Your task to perform on an android device: turn on sleep mode Image 0: 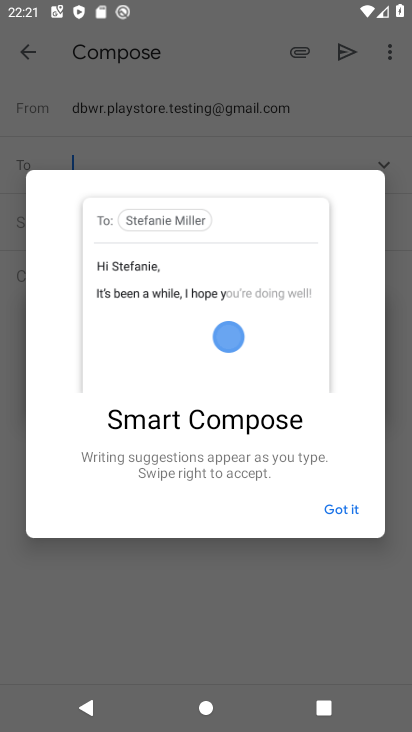
Step 0: press home button
Your task to perform on an android device: turn on sleep mode Image 1: 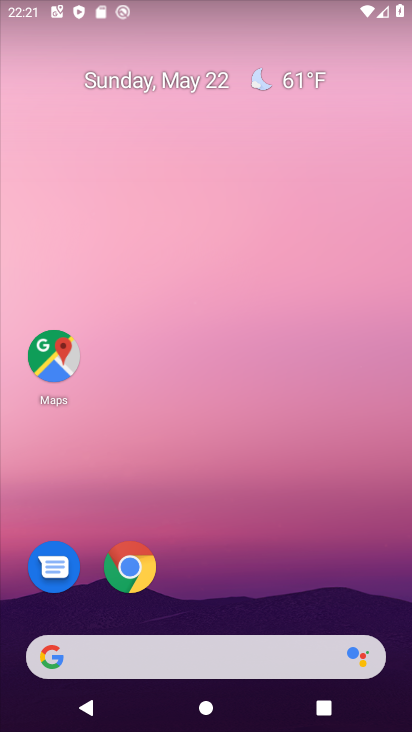
Step 1: drag from (195, 612) to (175, 83)
Your task to perform on an android device: turn on sleep mode Image 2: 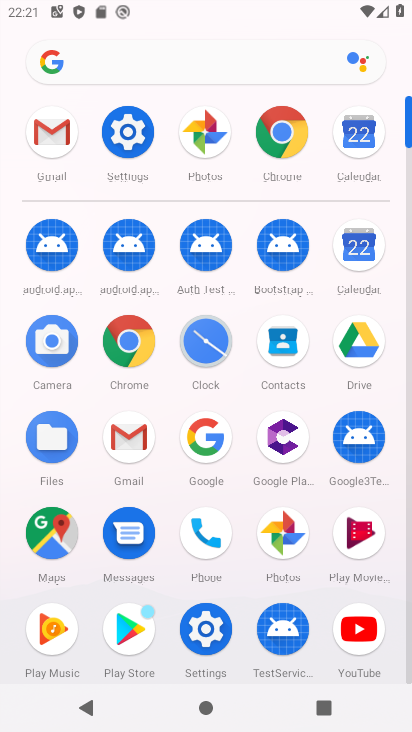
Step 2: click (124, 144)
Your task to perform on an android device: turn on sleep mode Image 3: 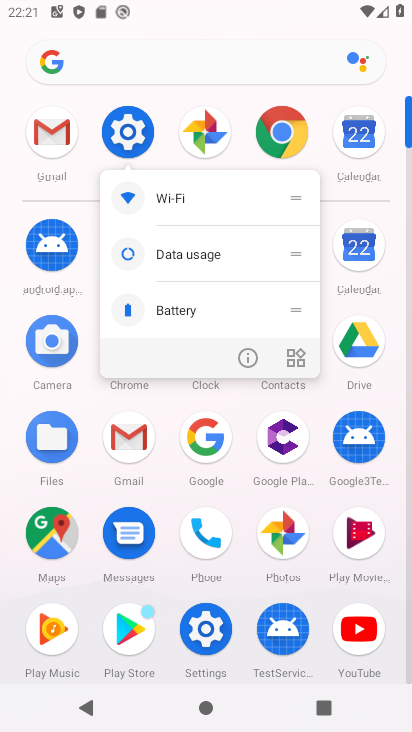
Step 3: click (123, 125)
Your task to perform on an android device: turn on sleep mode Image 4: 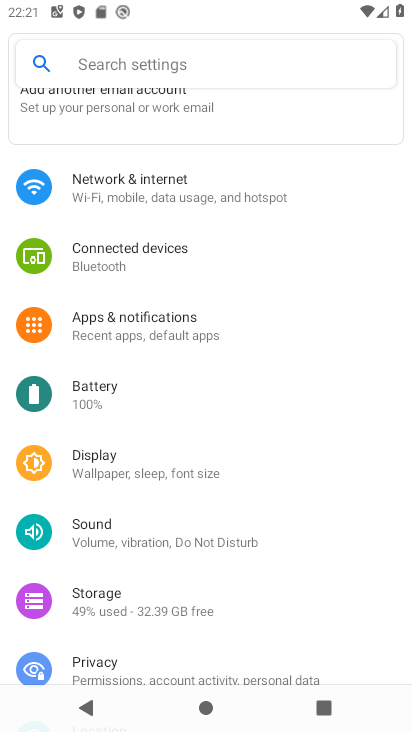
Step 4: task complete